Your task to perform on an android device: change timer sound Image 0: 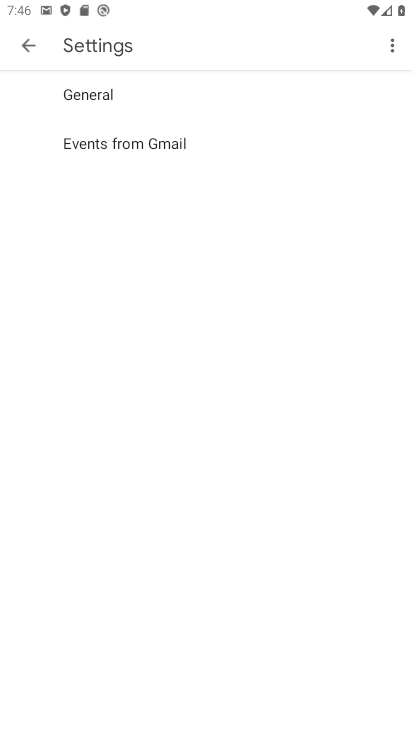
Step 0: press home button
Your task to perform on an android device: change timer sound Image 1: 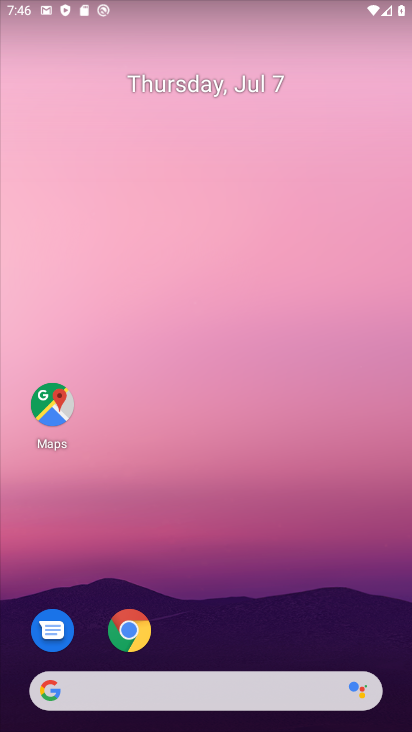
Step 1: drag from (249, 574) to (243, 223)
Your task to perform on an android device: change timer sound Image 2: 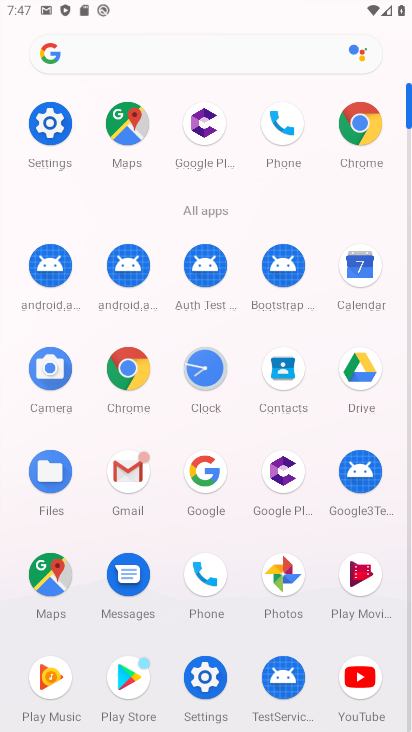
Step 2: click (203, 366)
Your task to perform on an android device: change timer sound Image 3: 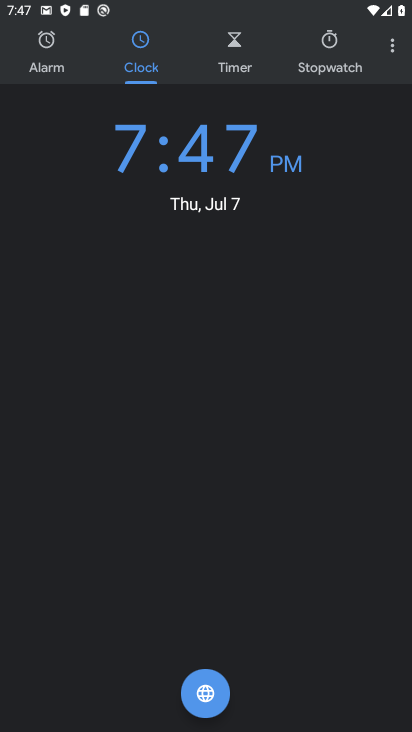
Step 3: click (394, 50)
Your task to perform on an android device: change timer sound Image 4: 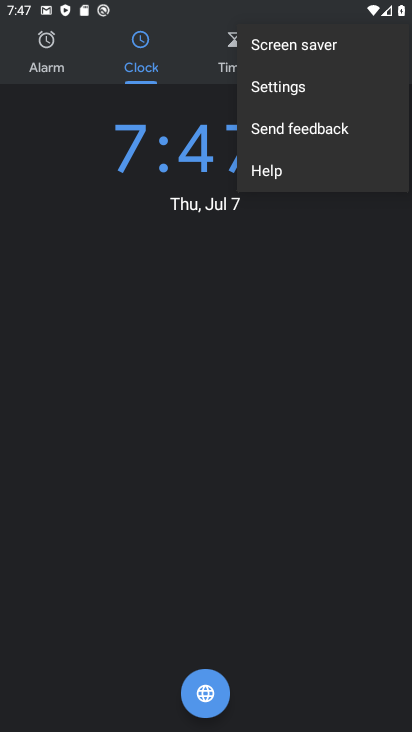
Step 4: click (316, 91)
Your task to perform on an android device: change timer sound Image 5: 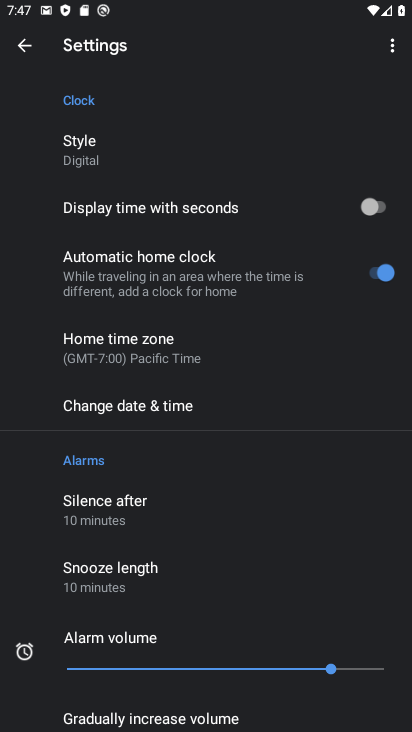
Step 5: drag from (229, 547) to (151, 196)
Your task to perform on an android device: change timer sound Image 6: 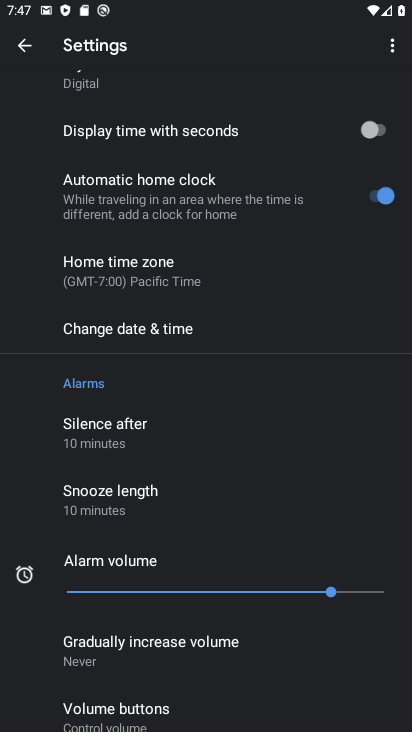
Step 6: drag from (142, 507) to (79, 28)
Your task to perform on an android device: change timer sound Image 7: 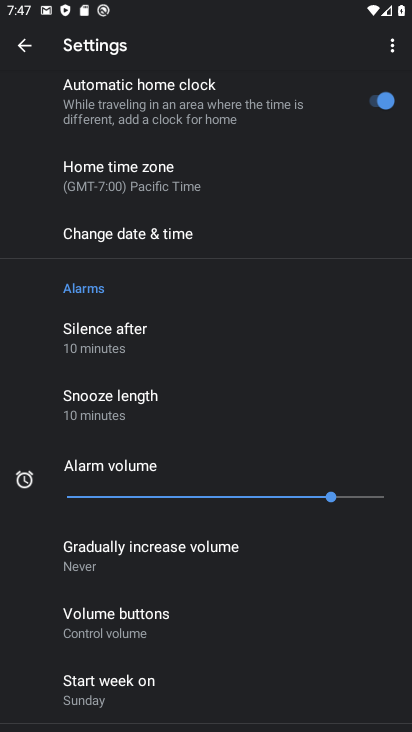
Step 7: drag from (103, 521) to (110, 113)
Your task to perform on an android device: change timer sound Image 8: 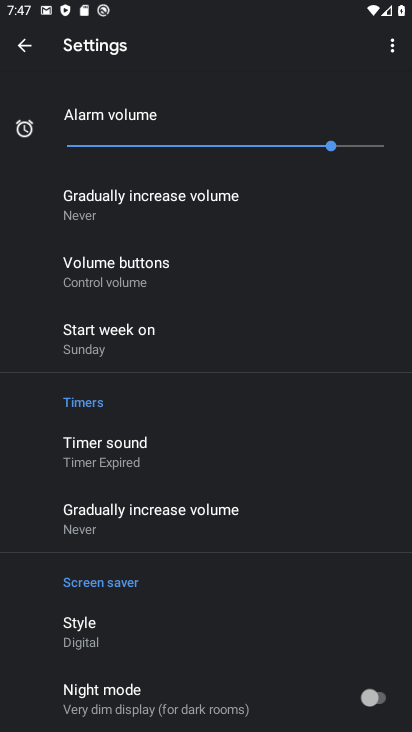
Step 8: click (131, 464)
Your task to perform on an android device: change timer sound Image 9: 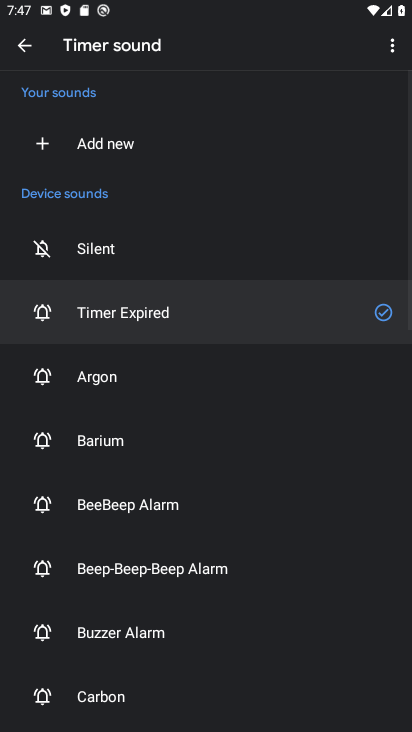
Step 9: click (150, 379)
Your task to perform on an android device: change timer sound Image 10: 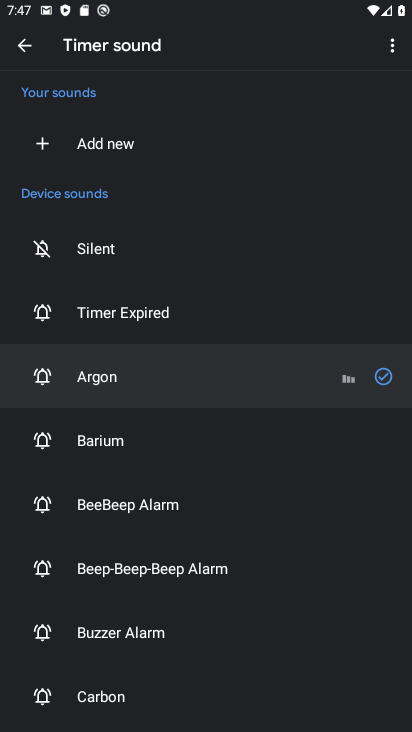
Step 10: task complete